Your task to perform on an android device: Open my contact list Image 0: 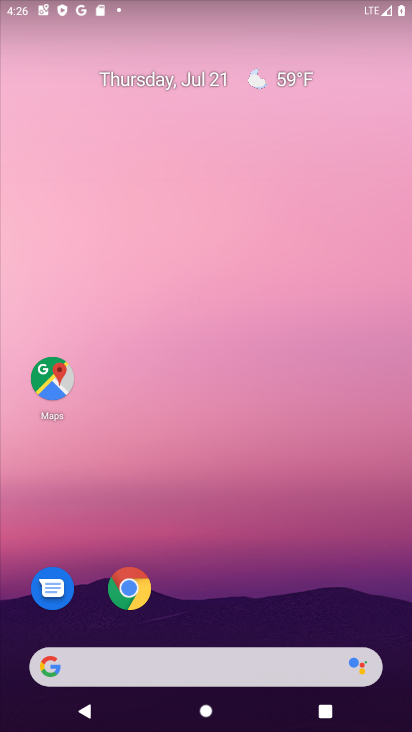
Step 0: drag from (230, 720) to (232, 68)
Your task to perform on an android device: Open my contact list Image 1: 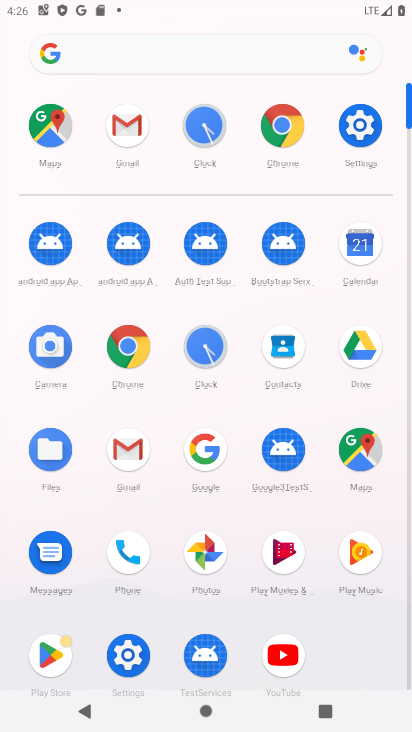
Step 1: click (284, 348)
Your task to perform on an android device: Open my contact list Image 2: 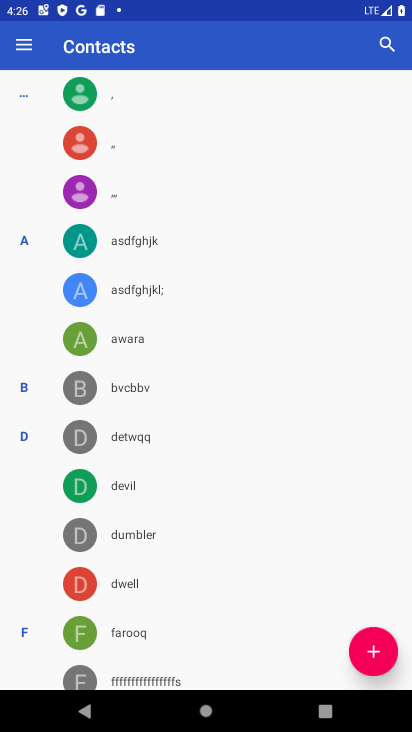
Step 2: task complete